Your task to perform on an android device: change the clock display to analog Image 0: 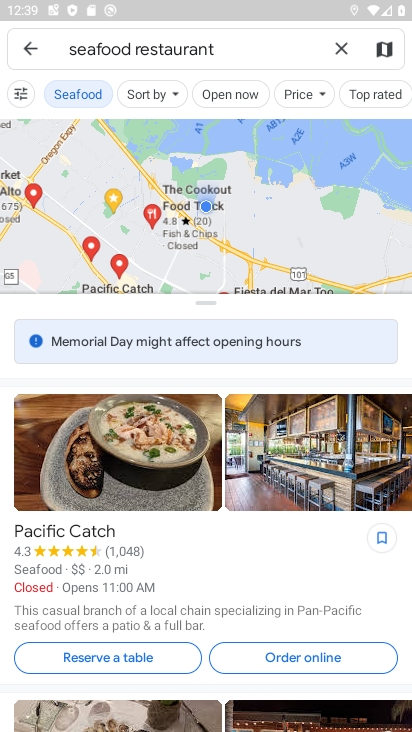
Step 0: press home button
Your task to perform on an android device: change the clock display to analog Image 1: 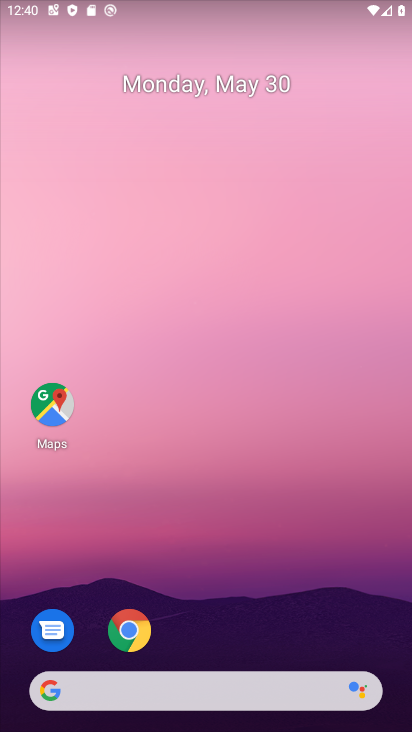
Step 1: drag from (254, 634) to (319, 26)
Your task to perform on an android device: change the clock display to analog Image 2: 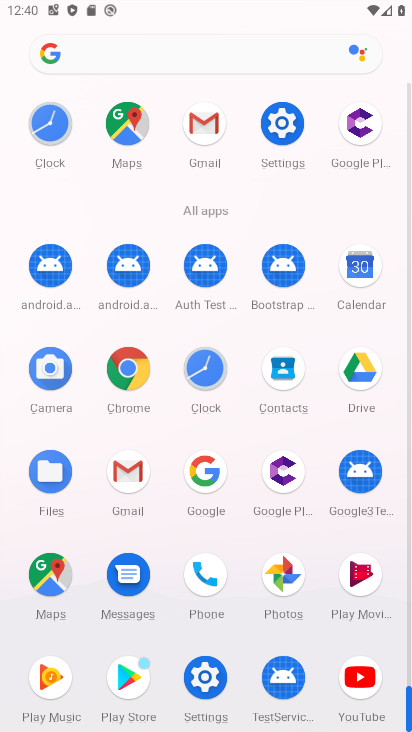
Step 2: click (206, 376)
Your task to perform on an android device: change the clock display to analog Image 3: 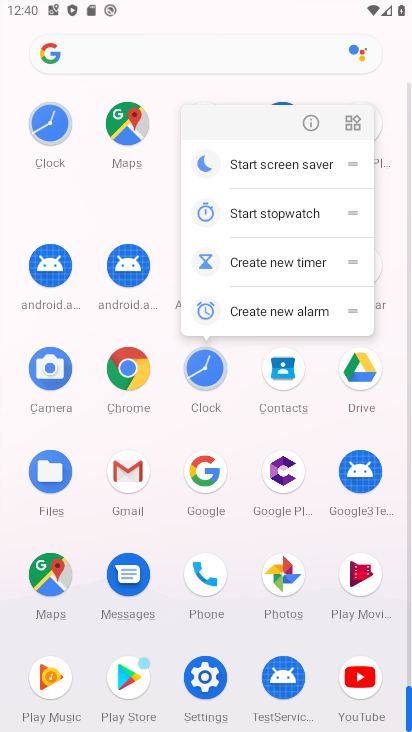
Step 3: click (217, 352)
Your task to perform on an android device: change the clock display to analog Image 4: 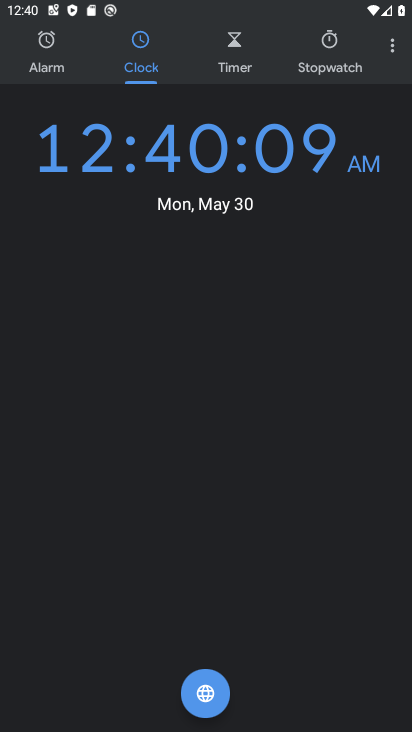
Step 4: click (393, 49)
Your task to perform on an android device: change the clock display to analog Image 5: 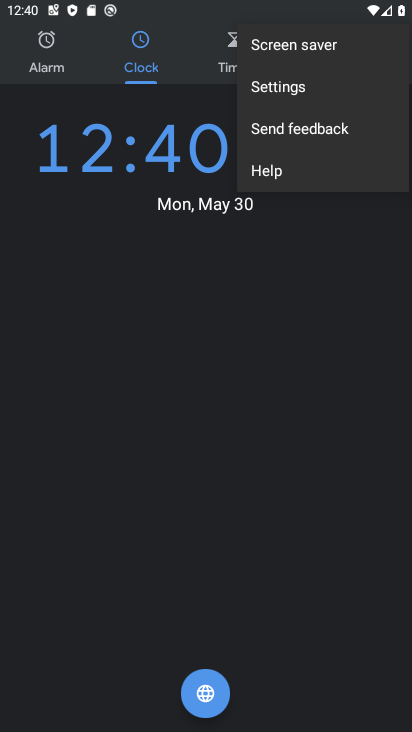
Step 5: click (350, 85)
Your task to perform on an android device: change the clock display to analog Image 6: 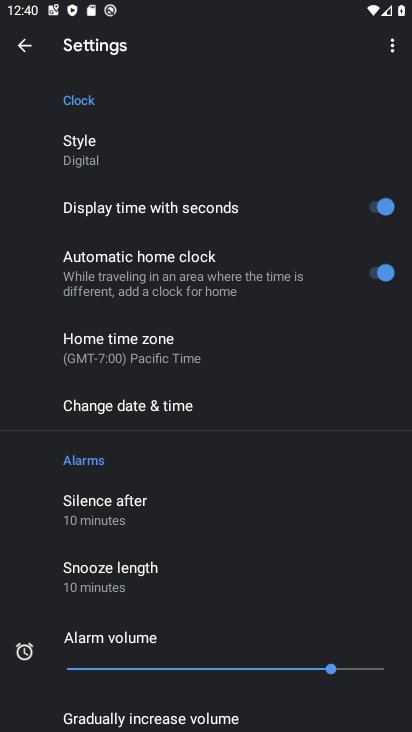
Step 6: click (163, 156)
Your task to perform on an android device: change the clock display to analog Image 7: 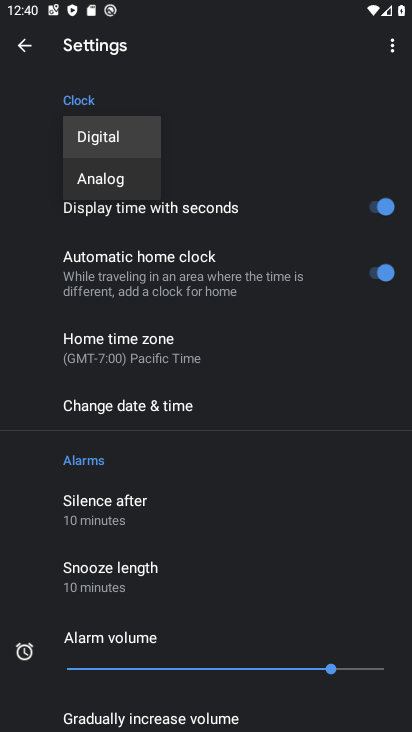
Step 7: click (139, 182)
Your task to perform on an android device: change the clock display to analog Image 8: 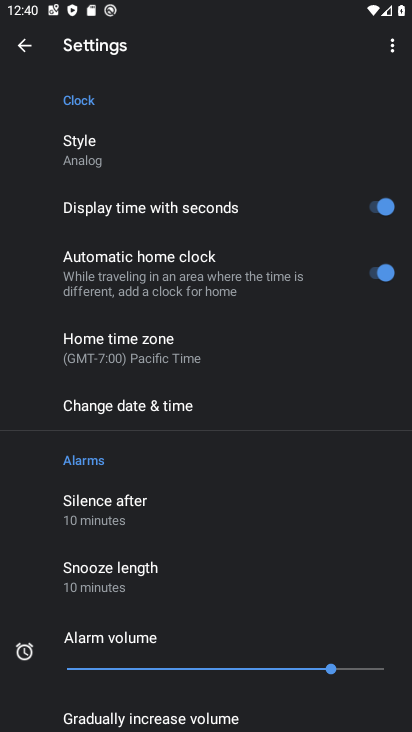
Step 8: task complete